Your task to perform on an android device: add a contact Image 0: 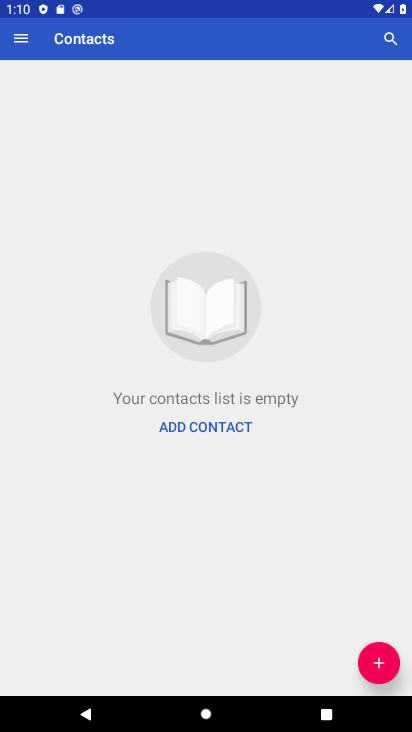
Step 0: click (392, 664)
Your task to perform on an android device: add a contact Image 1: 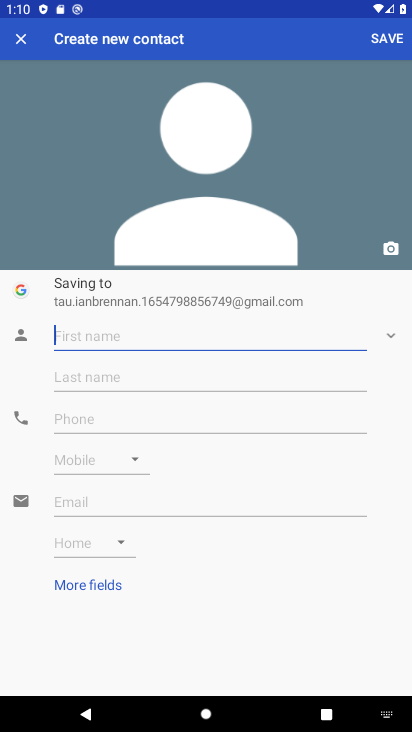
Step 1: type "poop"
Your task to perform on an android device: add a contact Image 2: 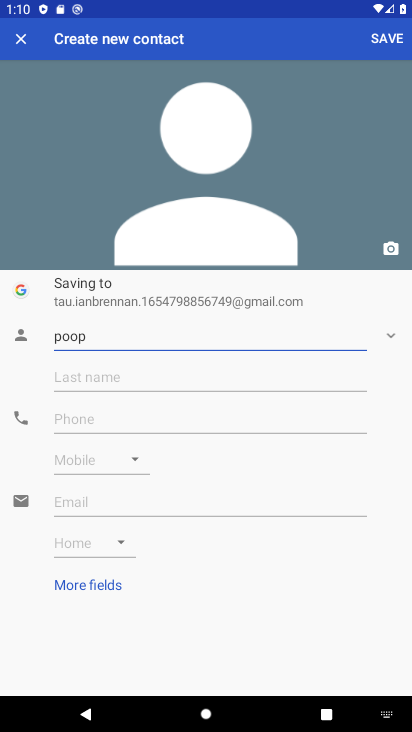
Step 2: click (221, 417)
Your task to perform on an android device: add a contact Image 3: 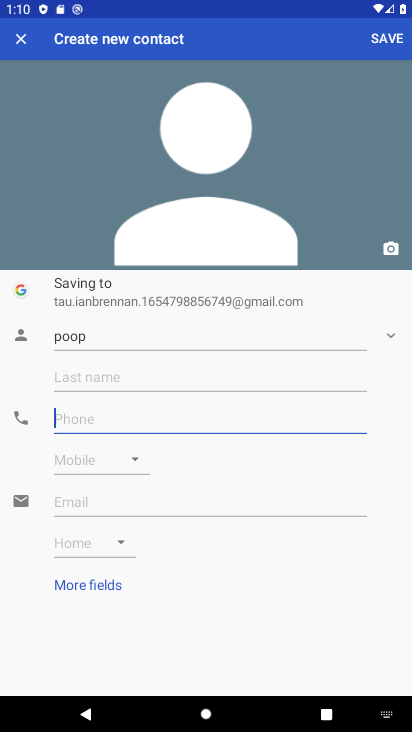
Step 3: type "7766554434"
Your task to perform on an android device: add a contact Image 4: 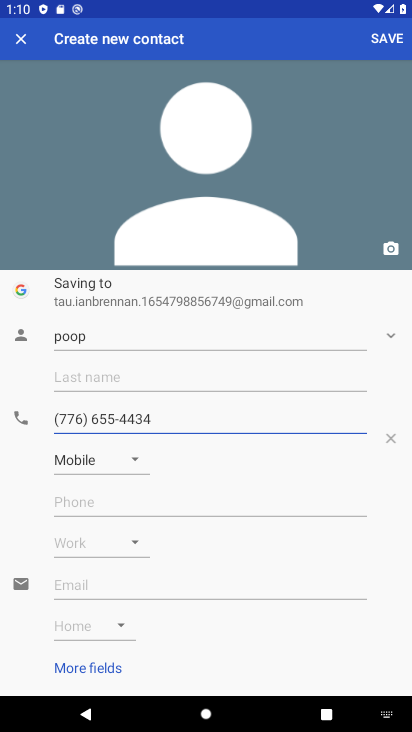
Step 4: click (395, 47)
Your task to perform on an android device: add a contact Image 5: 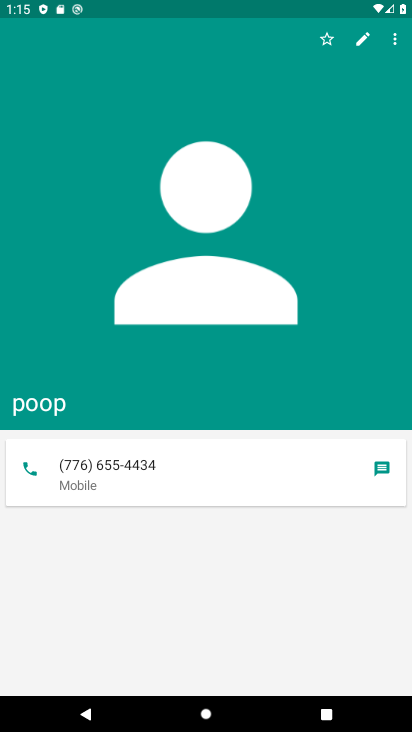
Step 5: task complete